Your task to perform on an android device: see tabs open on other devices in the chrome app Image 0: 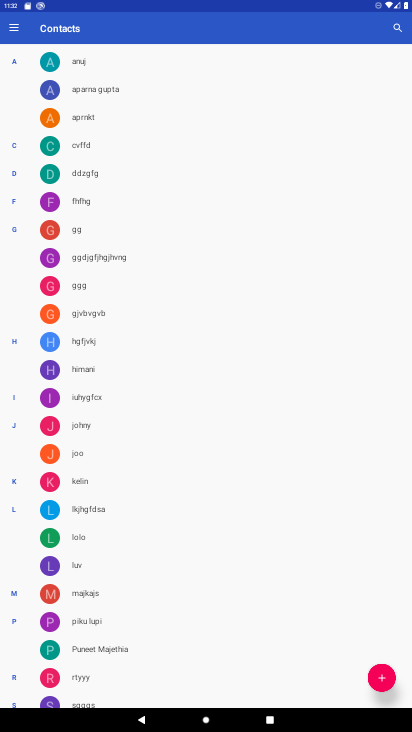
Step 0: press home button
Your task to perform on an android device: see tabs open on other devices in the chrome app Image 1: 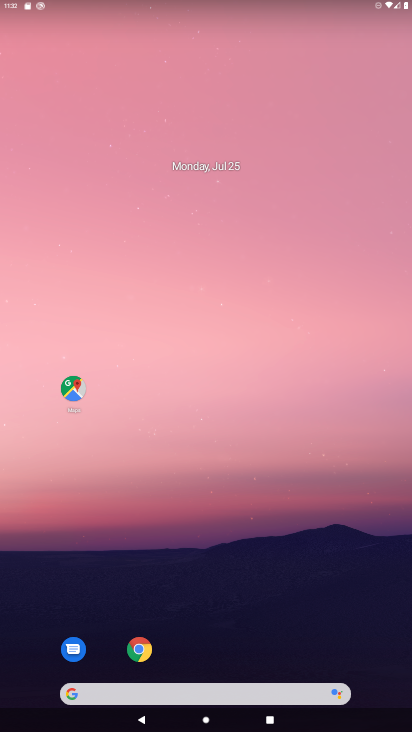
Step 1: click (139, 652)
Your task to perform on an android device: see tabs open on other devices in the chrome app Image 2: 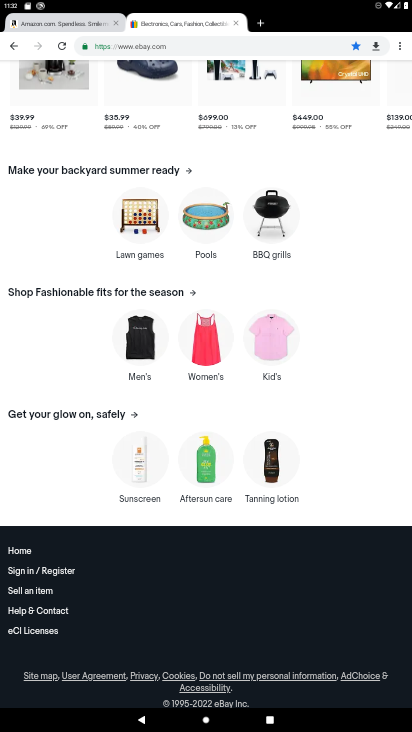
Step 2: click (399, 48)
Your task to perform on an android device: see tabs open on other devices in the chrome app Image 3: 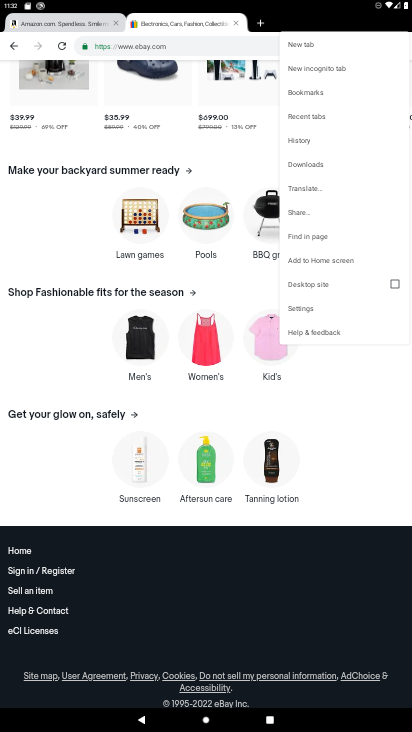
Step 3: click (303, 111)
Your task to perform on an android device: see tabs open on other devices in the chrome app Image 4: 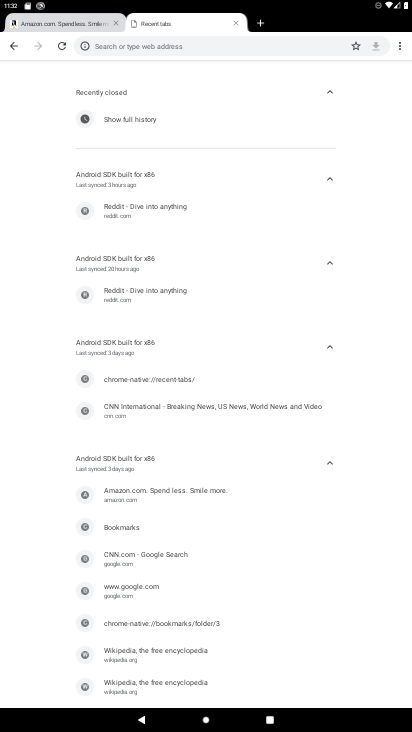
Step 4: task complete